Your task to perform on an android device: turn off wifi Image 0: 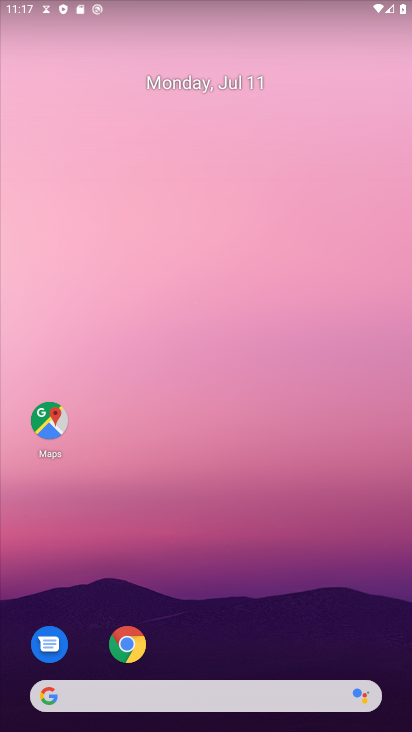
Step 0: drag from (398, 660) to (356, 130)
Your task to perform on an android device: turn off wifi Image 1: 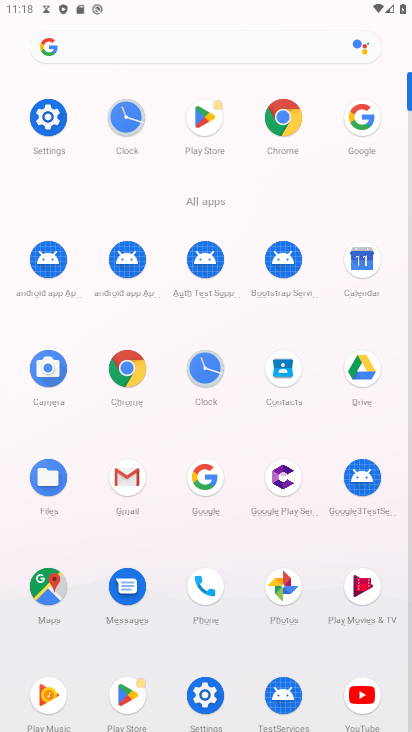
Step 1: click (202, 694)
Your task to perform on an android device: turn off wifi Image 2: 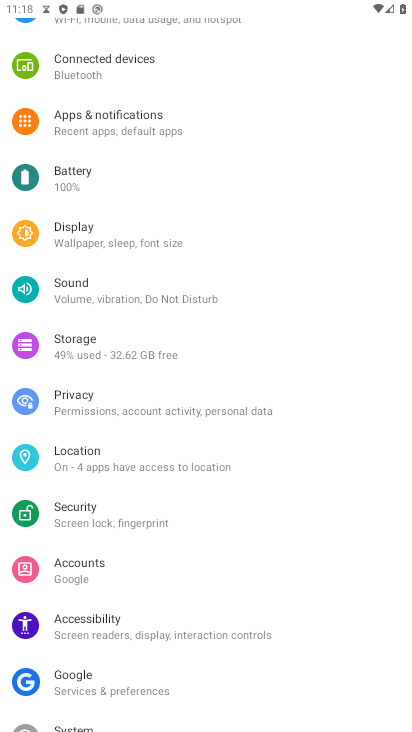
Step 2: drag from (223, 138) to (229, 553)
Your task to perform on an android device: turn off wifi Image 3: 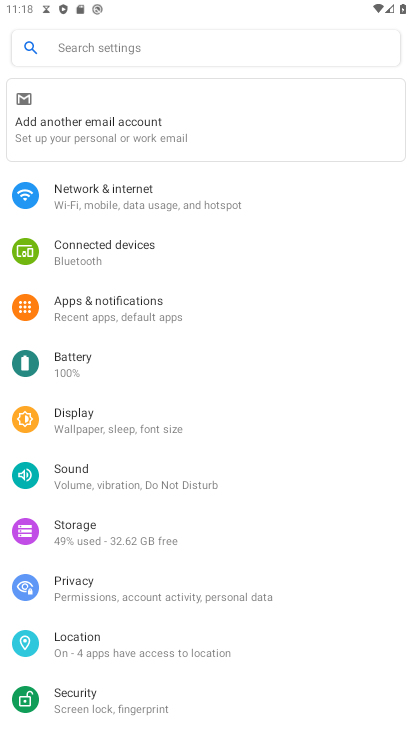
Step 3: click (100, 196)
Your task to perform on an android device: turn off wifi Image 4: 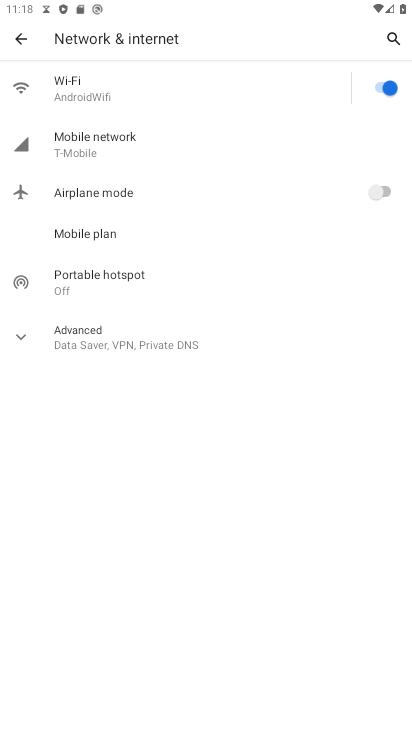
Step 4: click (372, 84)
Your task to perform on an android device: turn off wifi Image 5: 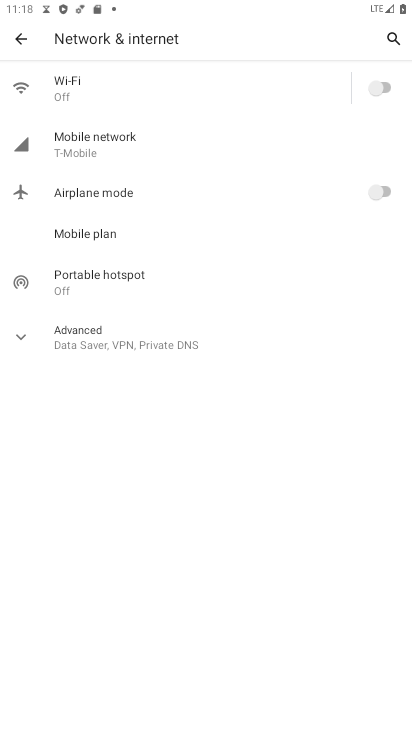
Step 5: task complete